Your task to perform on an android device: How much does a 3 bedroom apartment rent for in Dallas? Image 0: 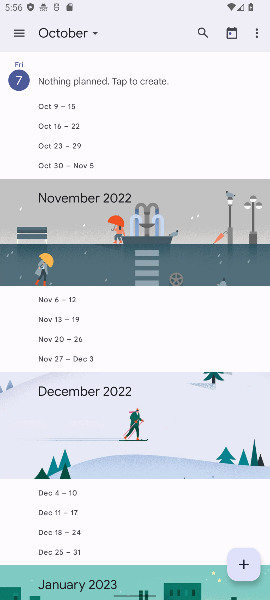
Step 0: press home button
Your task to perform on an android device: How much does a 3 bedroom apartment rent for in Dallas? Image 1: 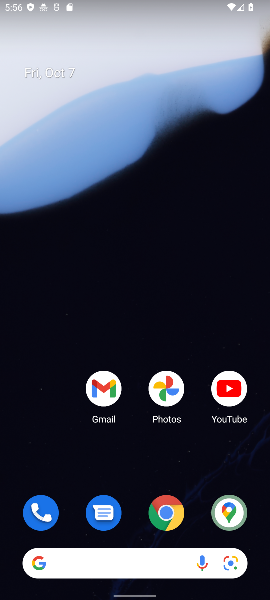
Step 1: click (89, 558)
Your task to perform on an android device: How much does a 3 bedroom apartment rent for in Dallas? Image 2: 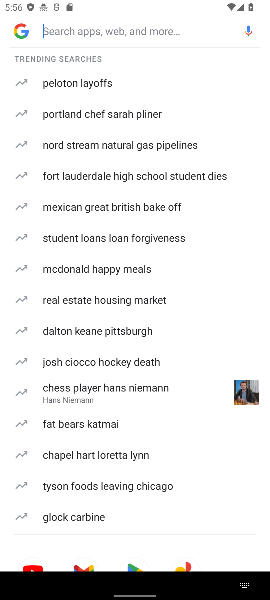
Step 2: type "How much does a 3 bedroom apartment rent for in Dallas?"
Your task to perform on an android device: How much does a 3 bedroom apartment rent for in Dallas? Image 3: 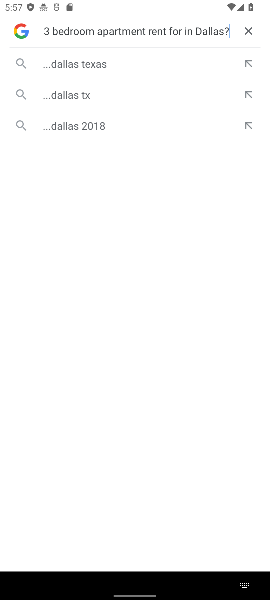
Step 3: click (97, 123)
Your task to perform on an android device: How much does a 3 bedroom apartment rent for in Dallas? Image 4: 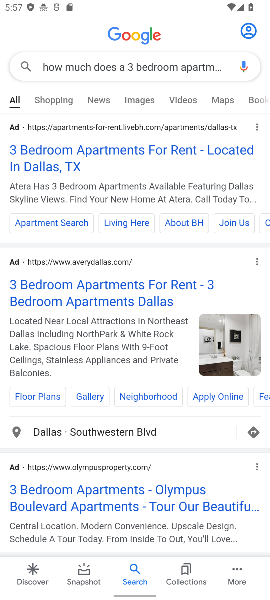
Step 4: click (51, 152)
Your task to perform on an android device: How much does a 3 bedroom apartment rent for in Dallas? Image 5: 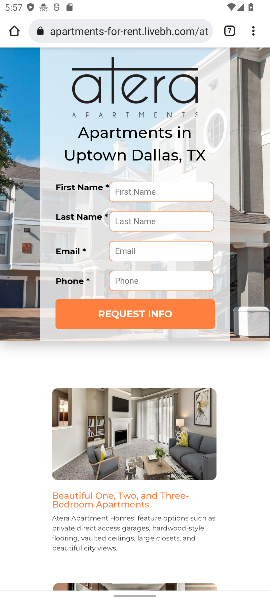
Step 5: task complete